Your task to perform on an android device: What's the weather going to be this weekend? Image 0: 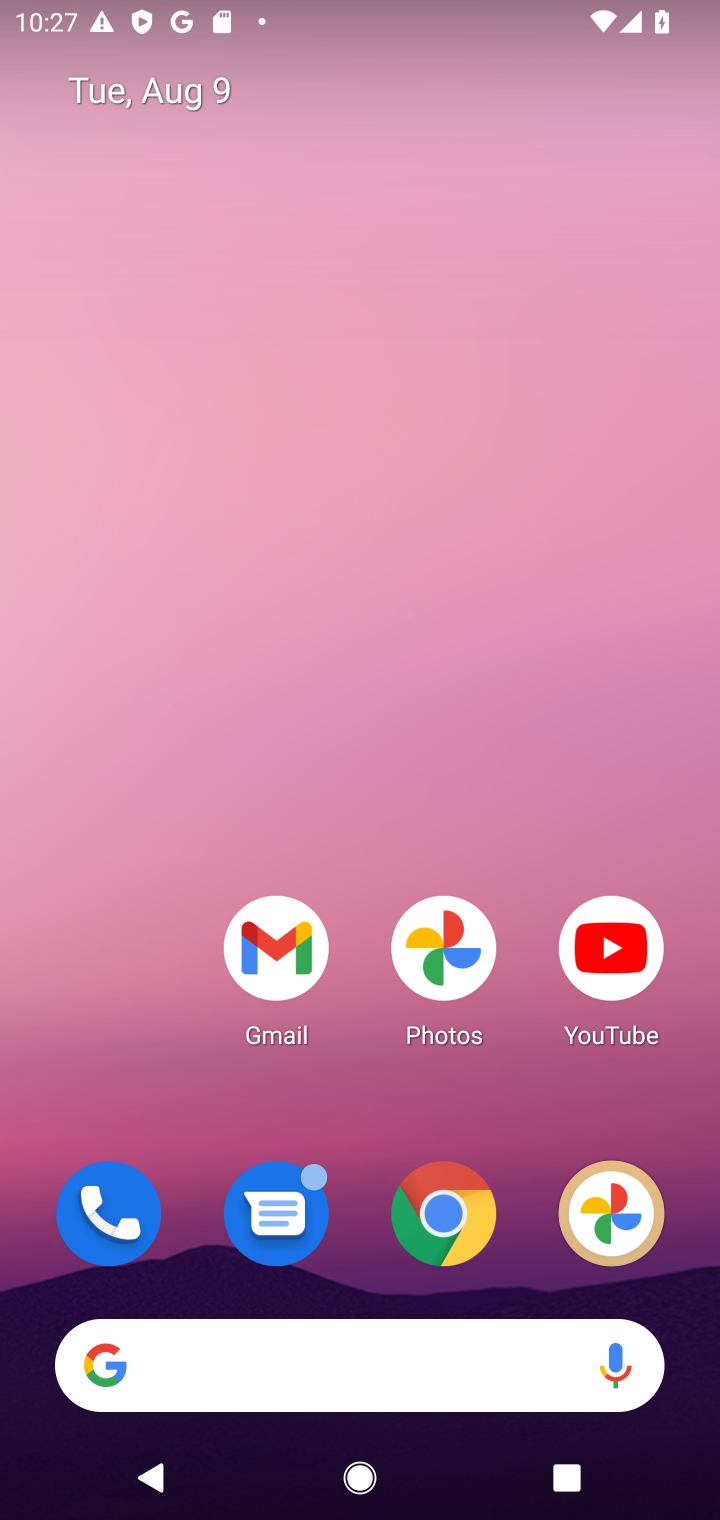
Step 0: click (467, 1322)
Your task to perform on an android device: What's the weather going to be this weekend? Image 1: 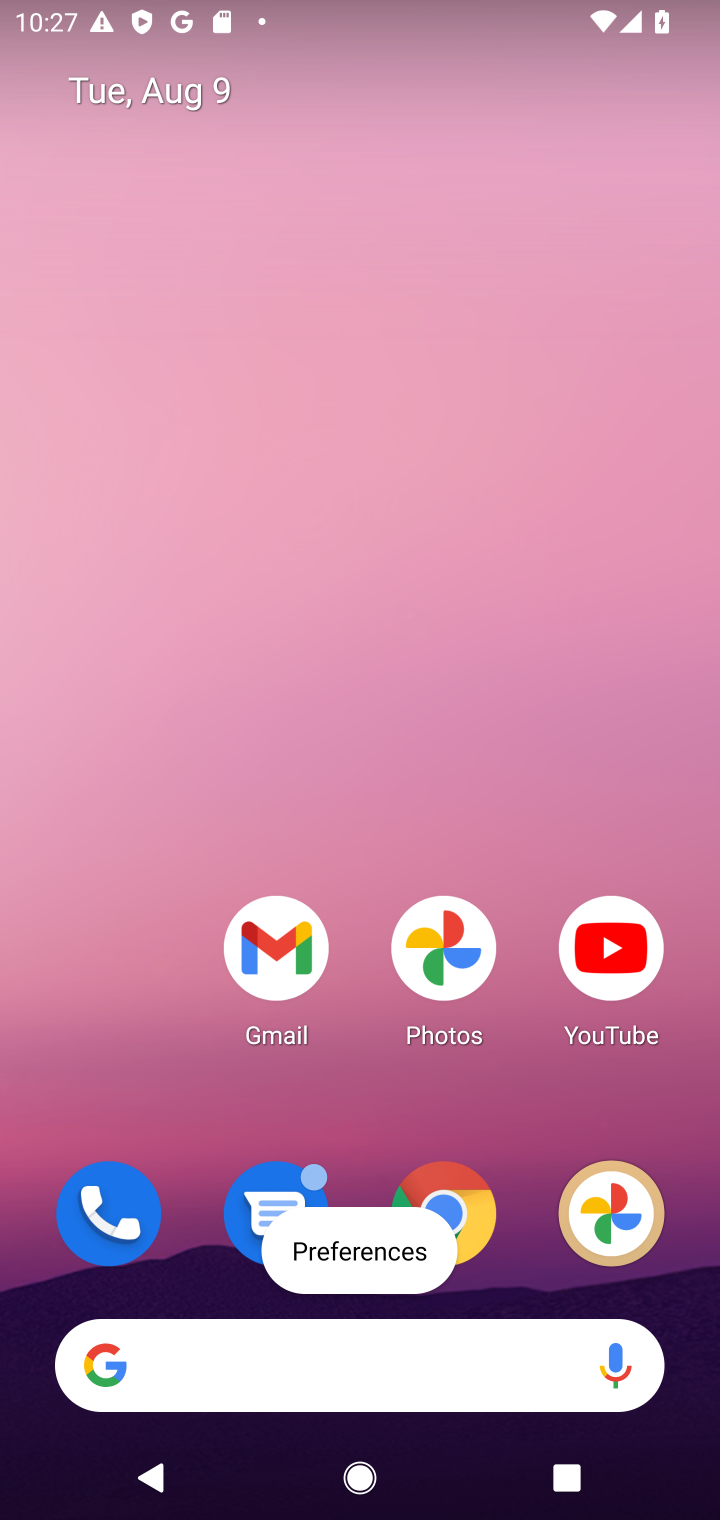
Step 1: click (420, 1385)
Your task to perform on an android device: What's the weather going to be this weekend? Image 2: 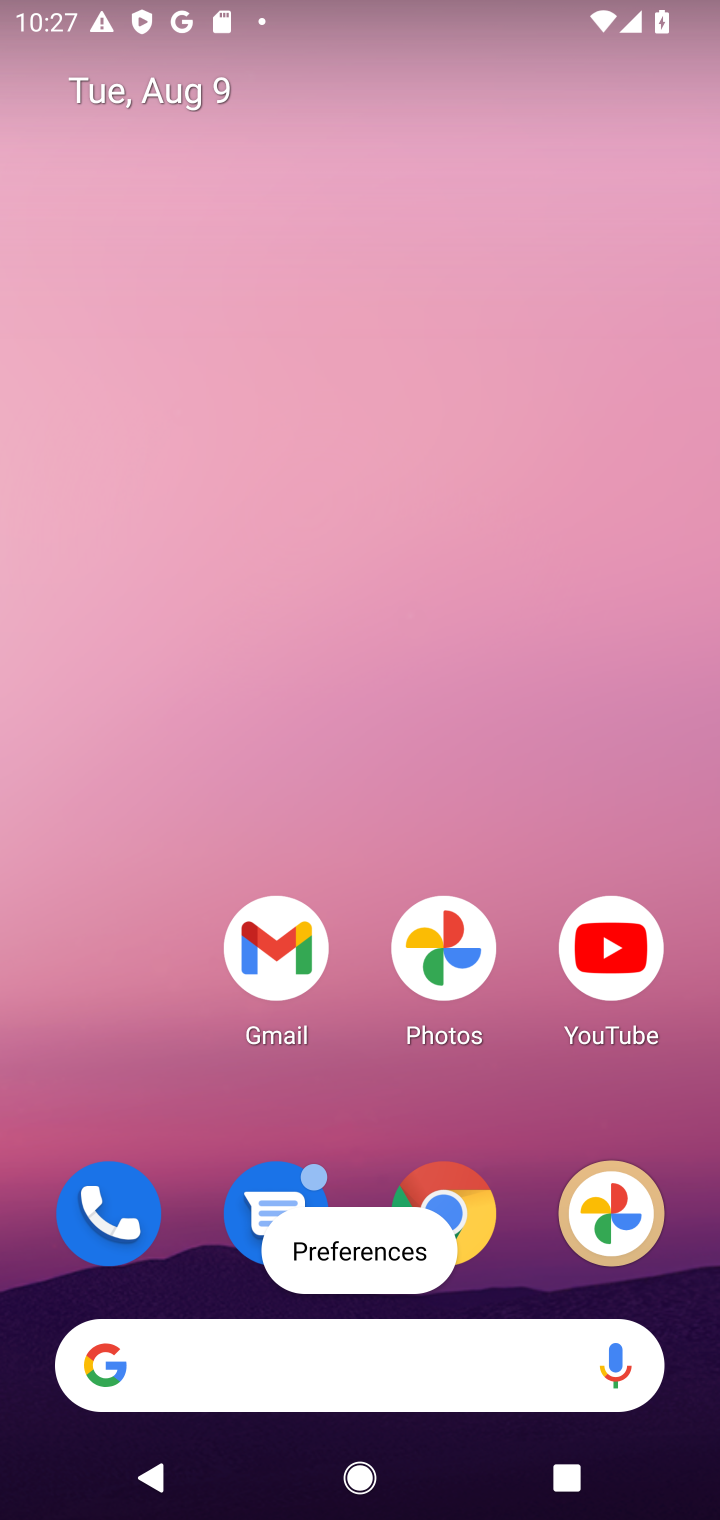
Step 2: click (103, 1348)
Your task to perform on an android device: What's the weather going to be this weekend? Image 3: 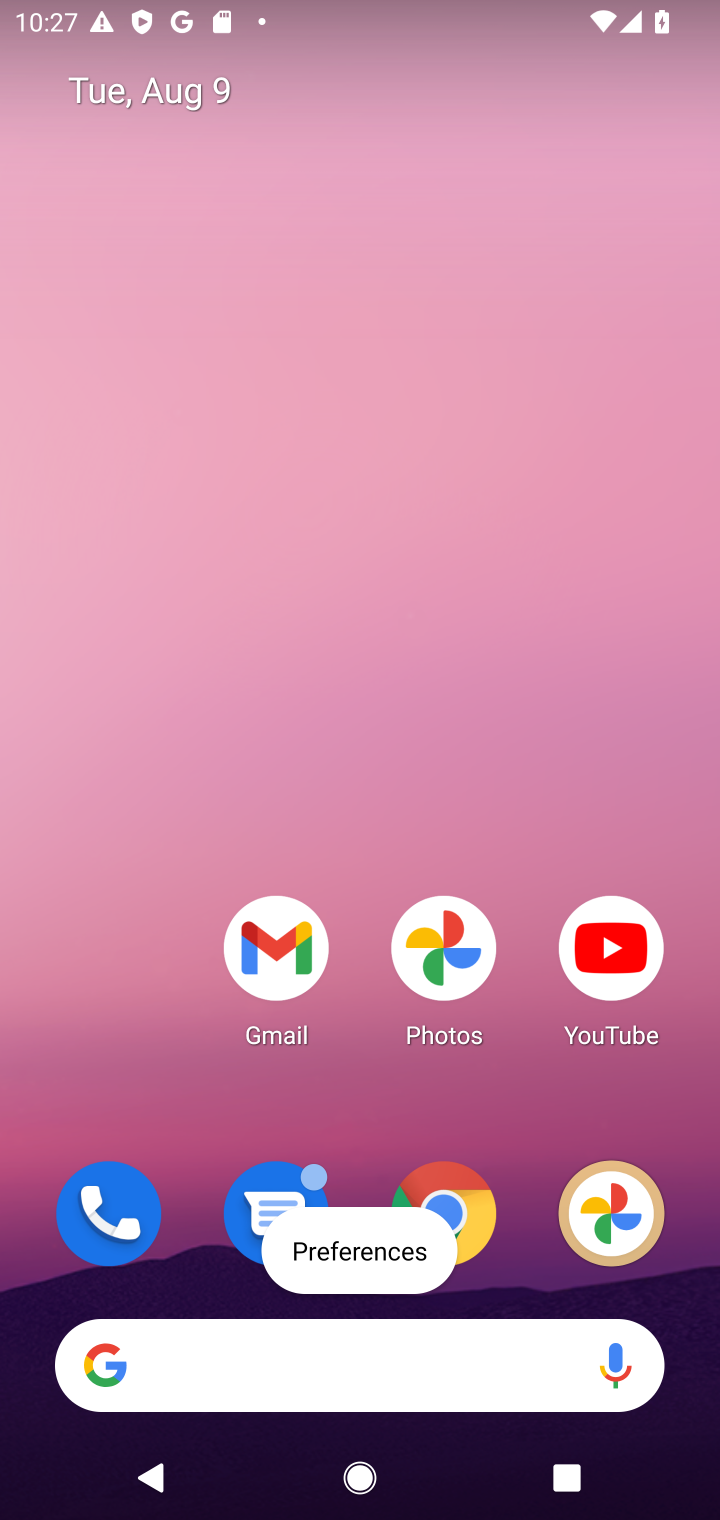
Step 3: click (275, 1399)
Your task to perform on an android device: What's the weather going to be this weekend? Image 4: 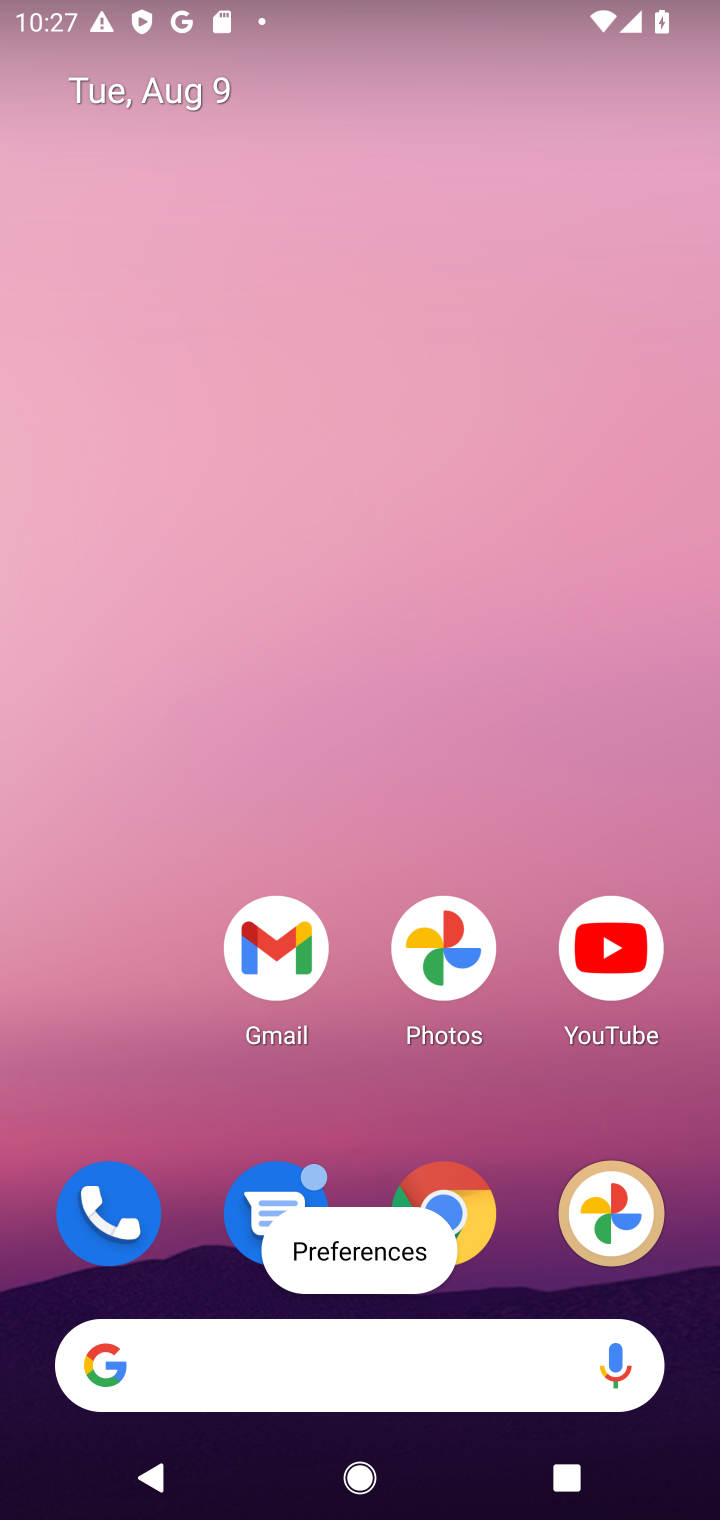
Step 4: drag from (265, 1171) to (213, 176)
Your task to perform on an android device: What's the weather going to be this weekend? Image 5: 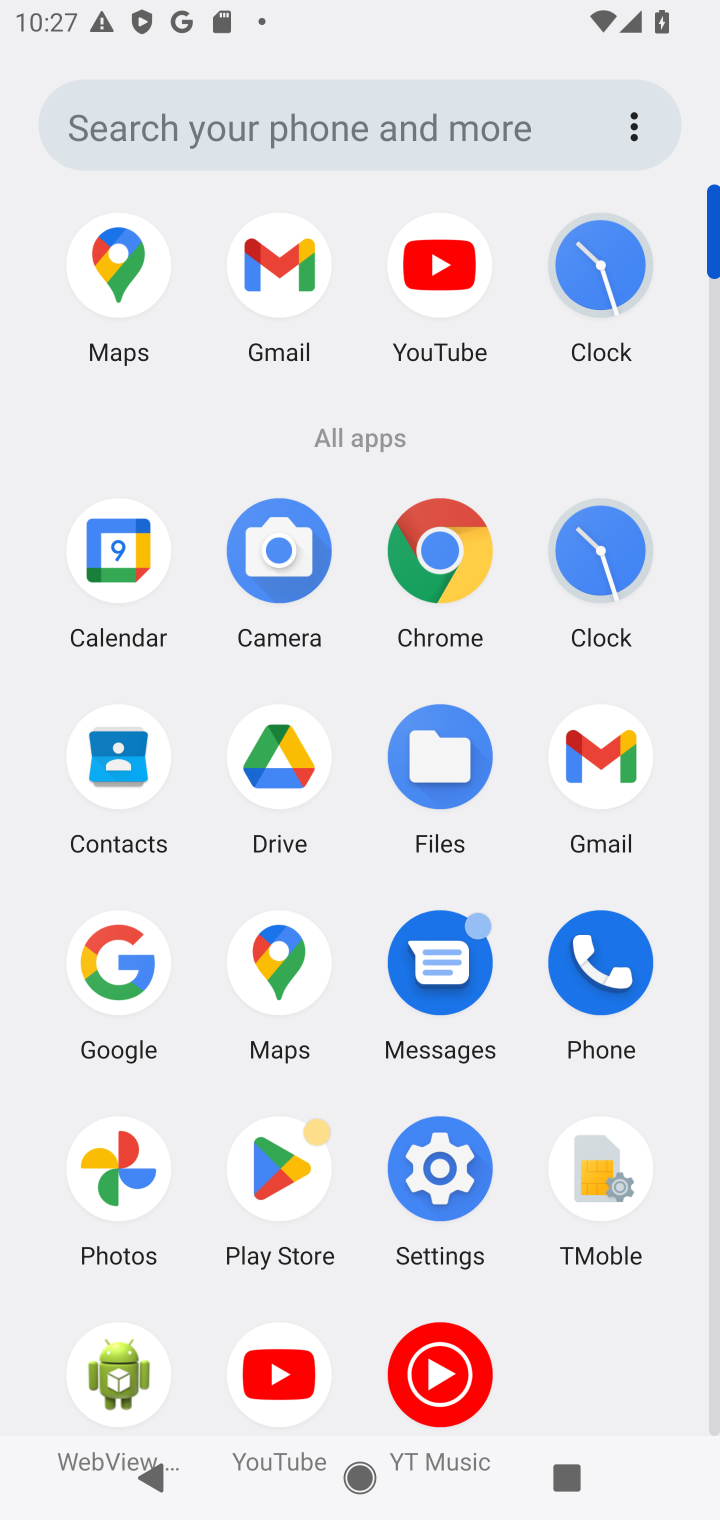
Step 5: click (65, 976)
Your task to perform on an android device: What's the weather going to be this weekend? Image 6: 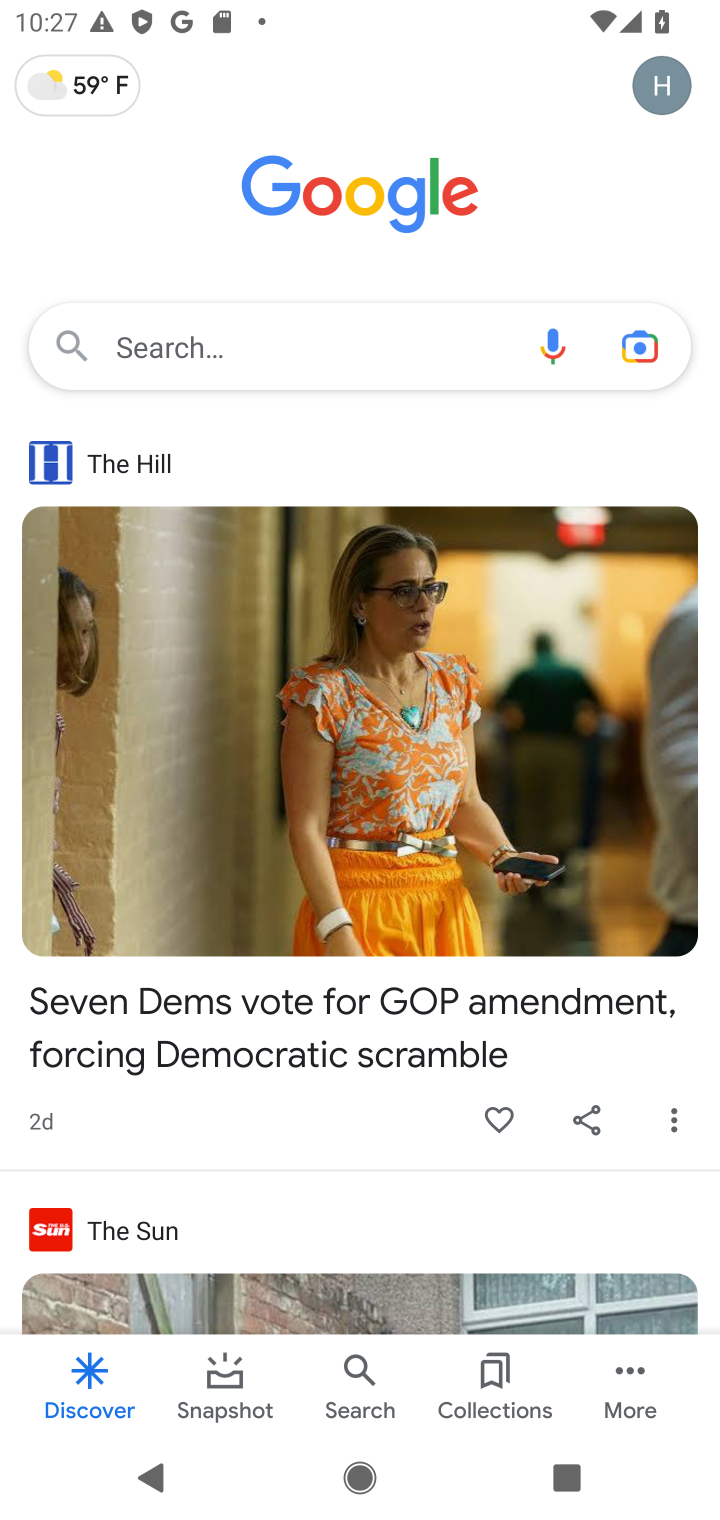
Step 6: click (344, 358)
Your task to perform on an android device: What's the weather going to be this weekend? Image 7: 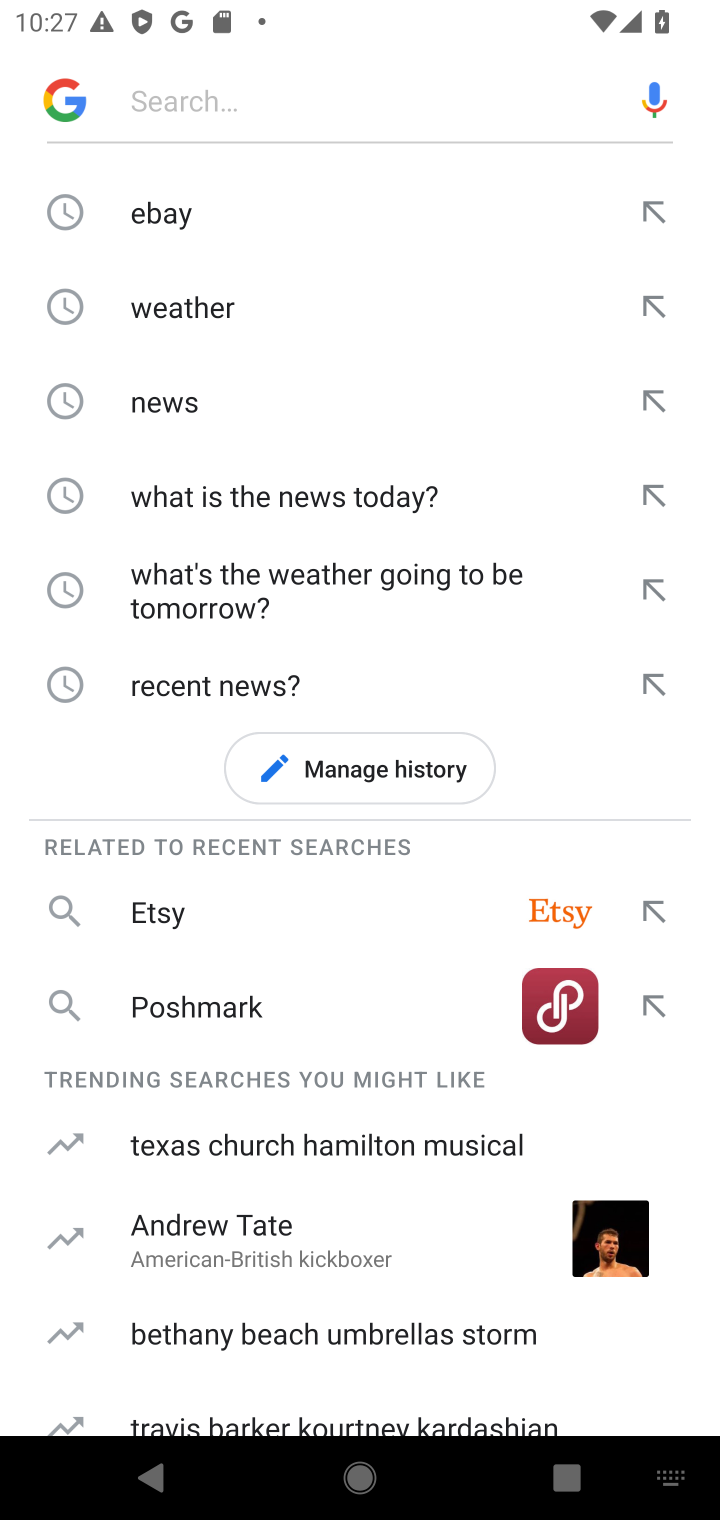
Step 7: click (171, 313)
Your task to perform on an android device: What's the weather going to be this weekend? Image 8: 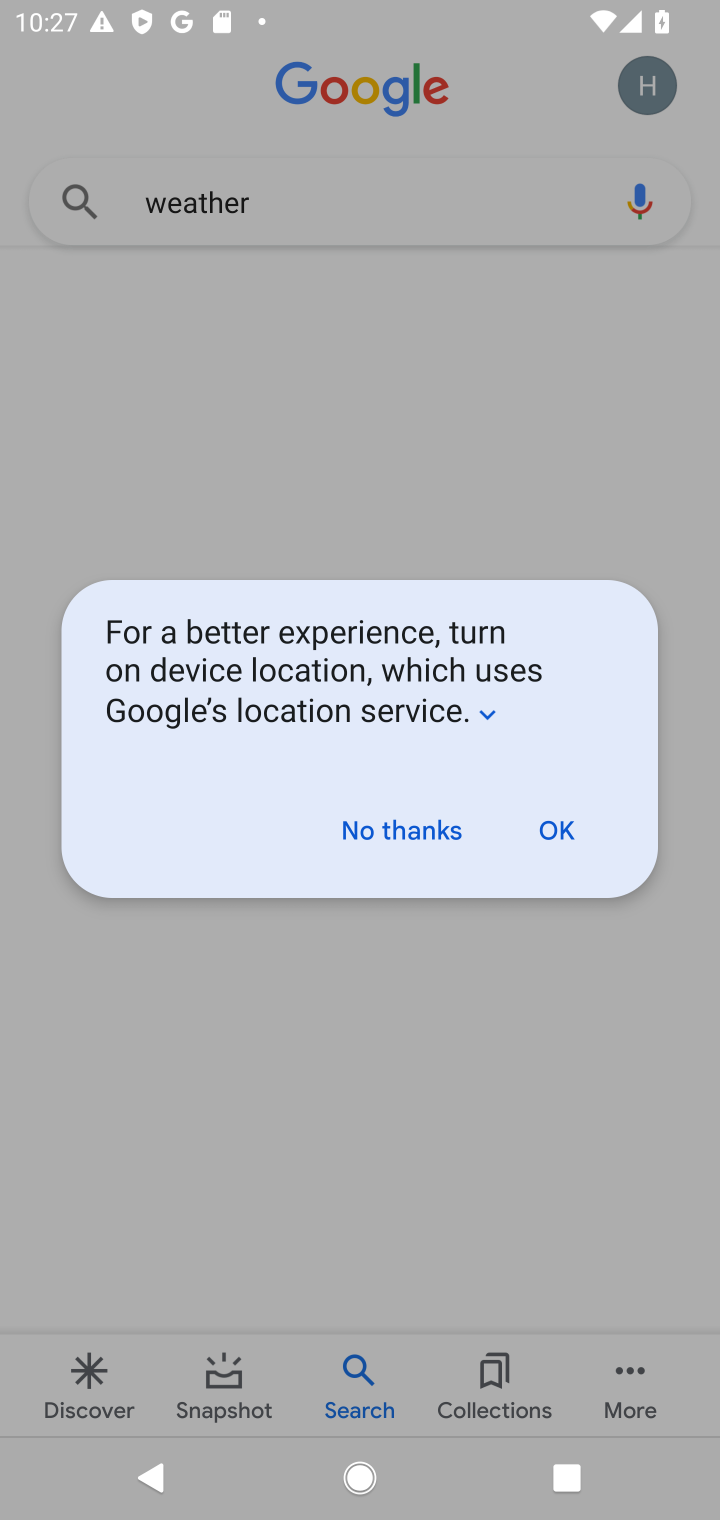
Step 8: click (538, 814)
Your task to perform on an android device: What's the weather going to be this weekend? Image 9: 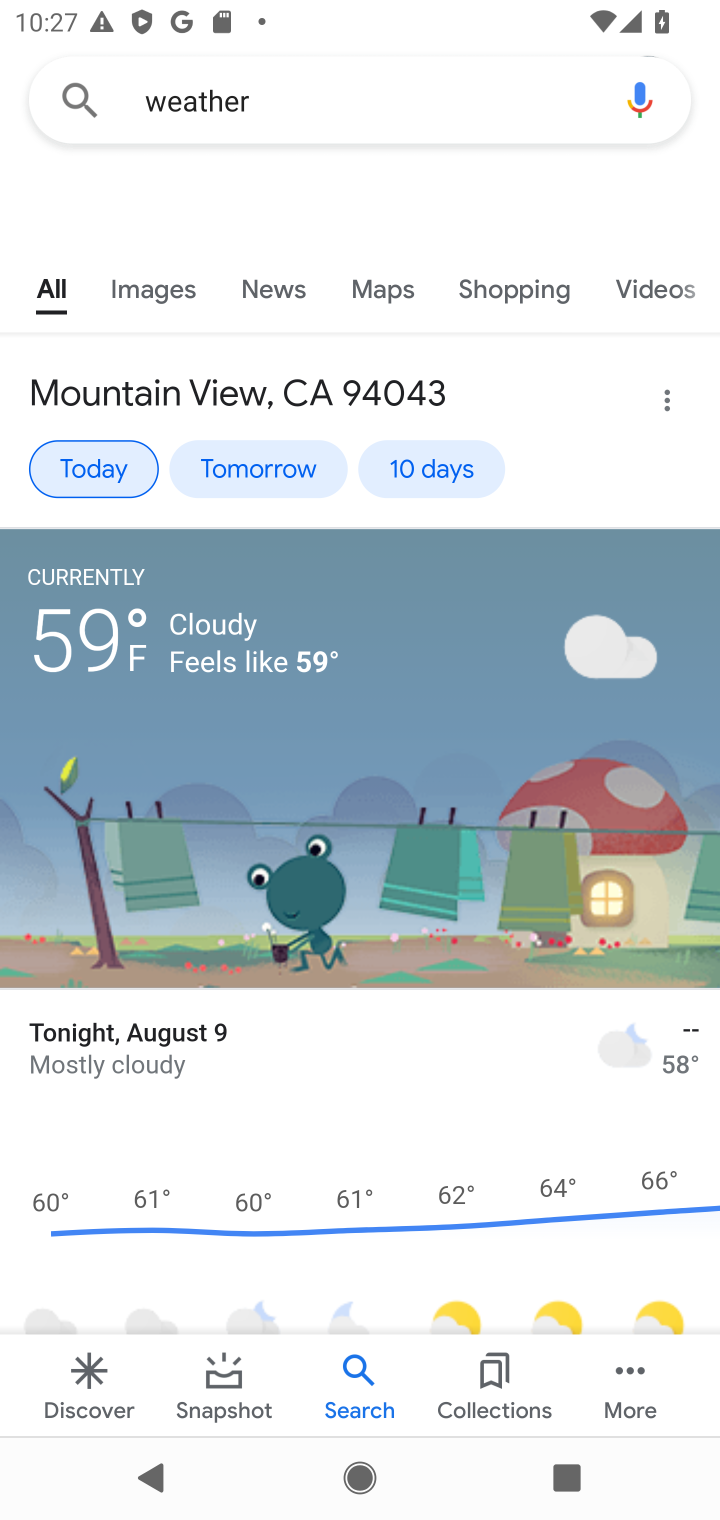
Step 9: click (427, 462)
Your task to perform on an android device: What's the weather going to be this weekend? Image 10: 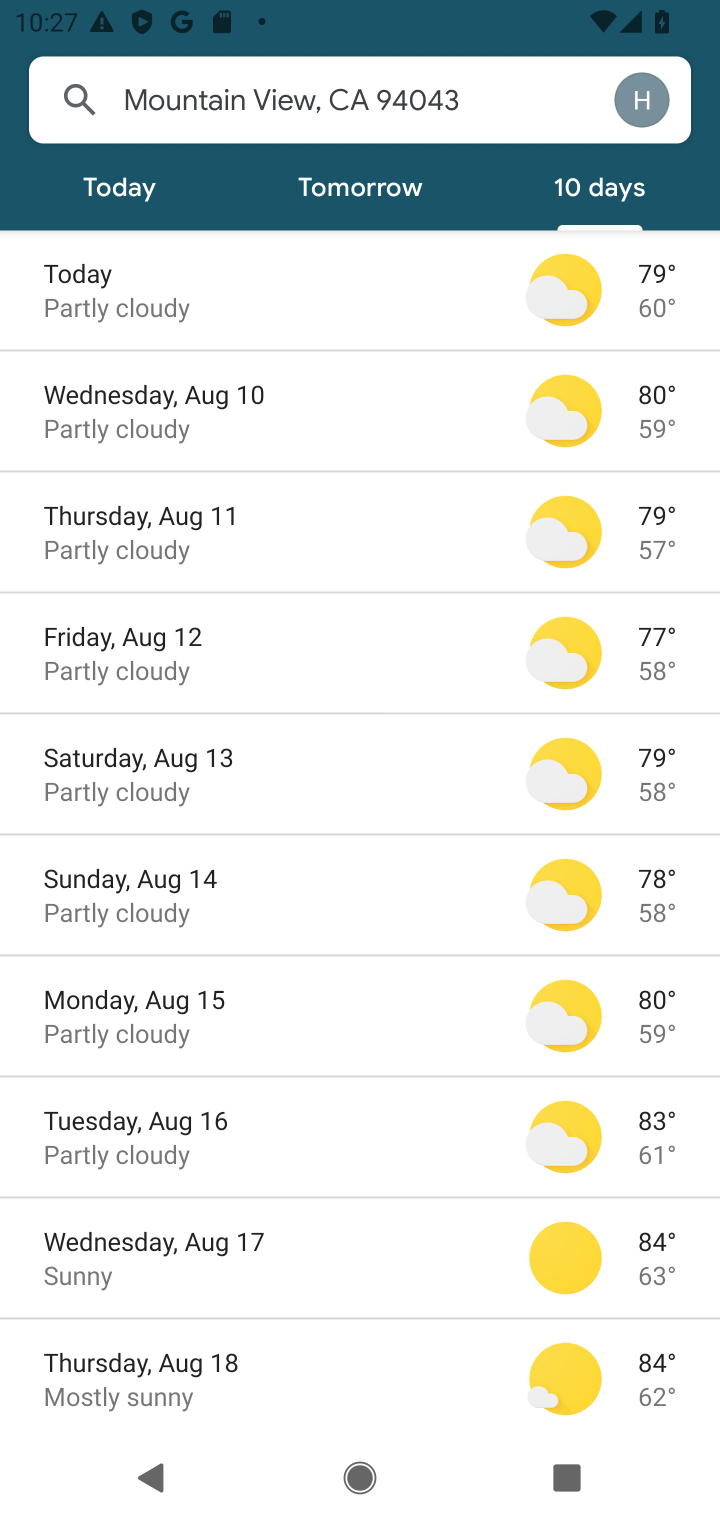
Step 10: task complete